Your task to perform on an android device: add a contact in the contacts app Image 0: 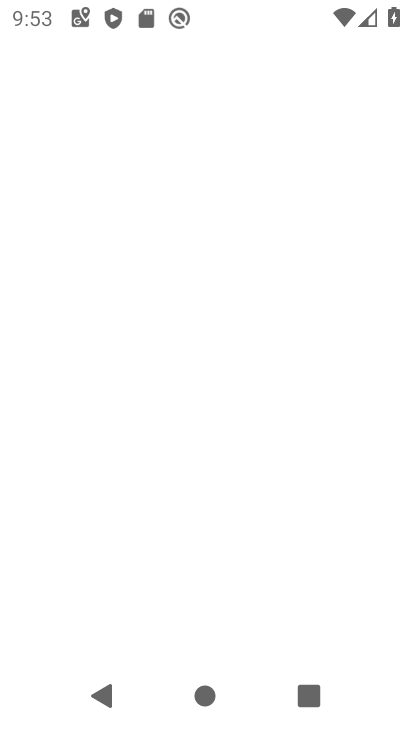
Step 0: press home button
Your task to perform on an android device: add a contact in the contacts app Image 1: 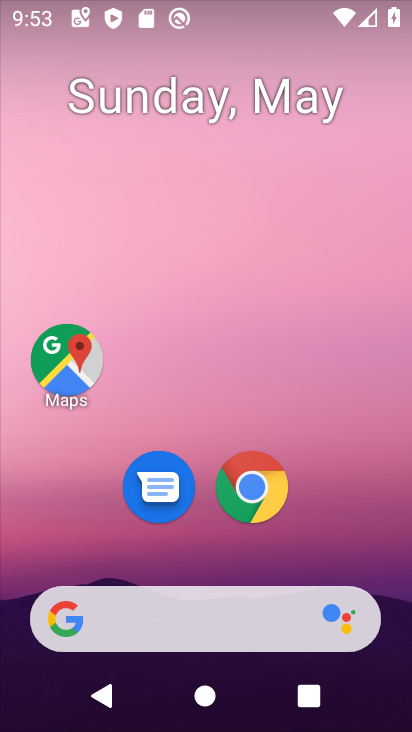
Step 1: drag from (389, 549) to (386, 89)
Your task to perform on an android device: add a contact in the contacts app Image 2: 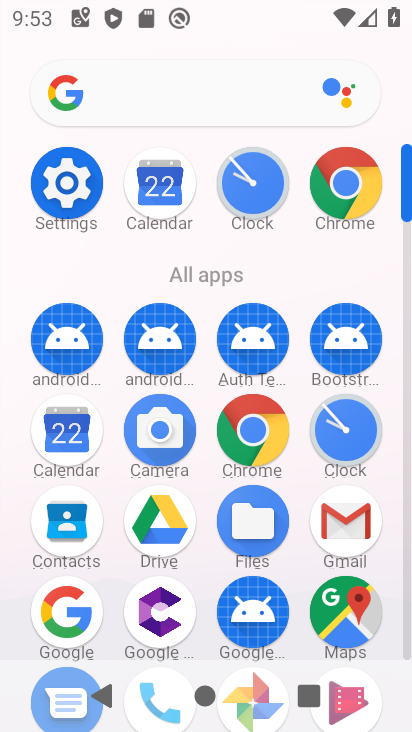
Step 2: click (81, 537)
Your task to perform on an android device: add a contact in the contacts app Image 3: 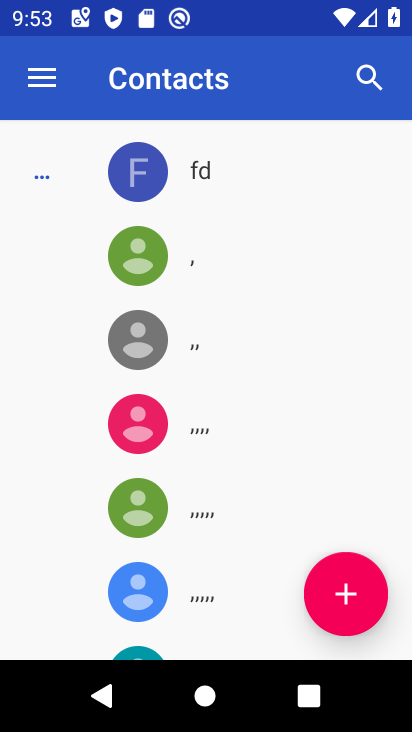
Step 3: click (363, 594)
Your task to perform on an android device: add a contact in the contacts app Image 4: 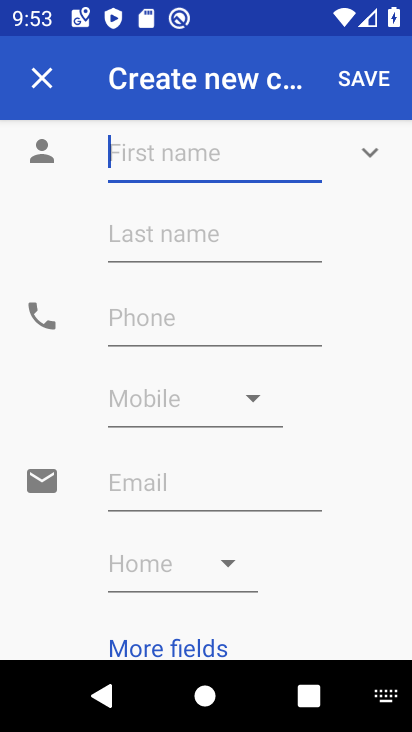
Step 4: click (204, 165)
Your task to perform on an android device: add a contact in the contacts app Image 5: 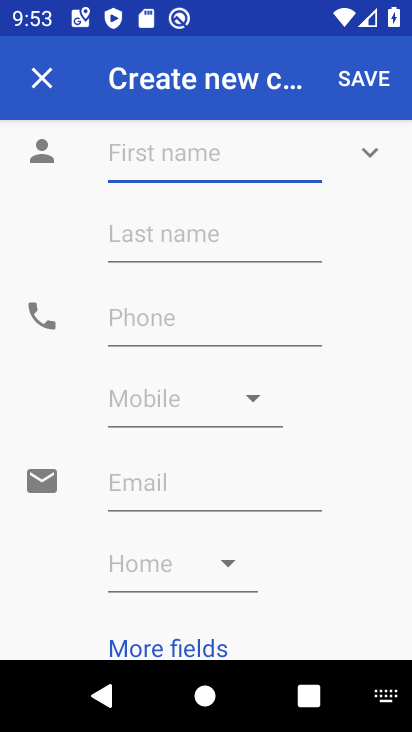
Step 5: type "lolll"
Your task to perform on an android device: add a contact in the contacts app Image 6: 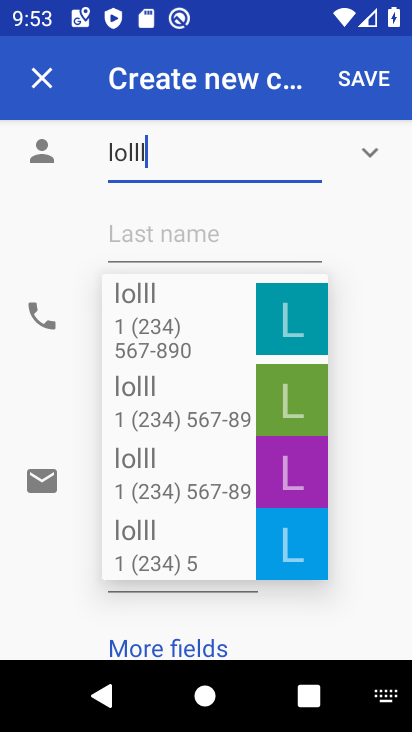
Step 6: click (406, 292)
Your task to perform on an android device: add a contact in the contacts app Image 7: 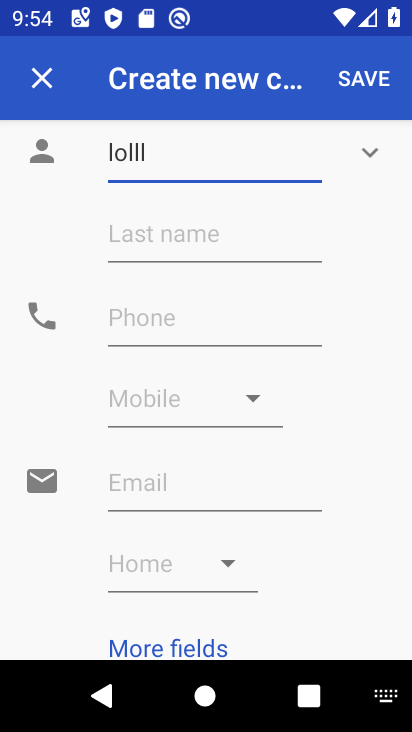
Step 7: click (173, 325)
Your task to perform on an android device: add a contact in the contacts app Image 8: 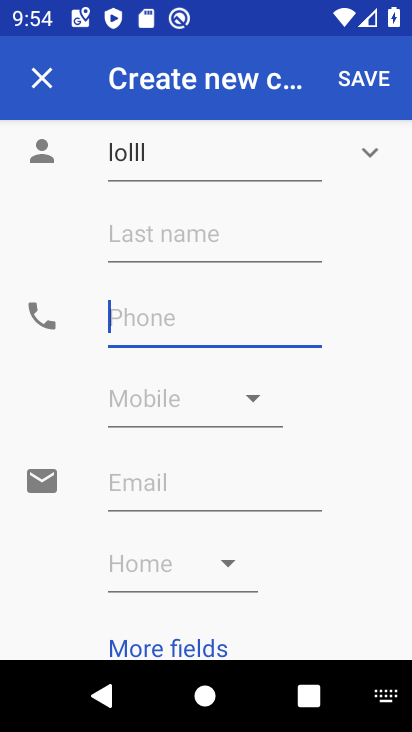
Step 8: type "12345678"
Your task to perform on an android device: add a contact in the contacts app Image 9: 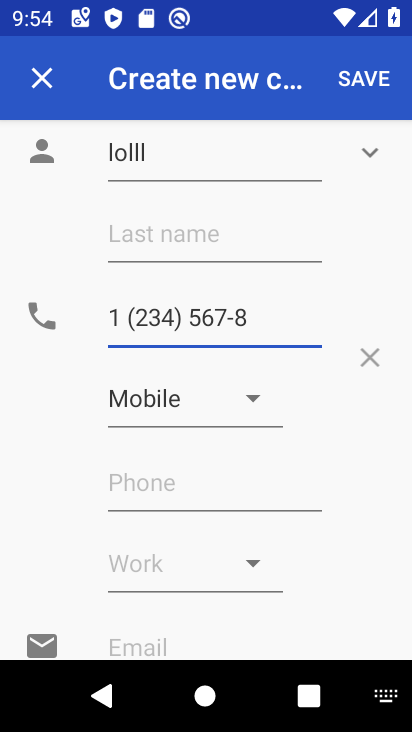
Step 9: click (371, 89)
Your task to perform on an android device: add a contact in the contacts app Image 10: 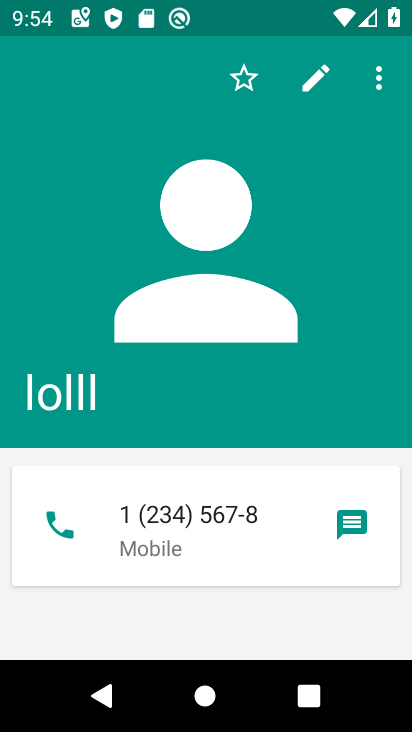
Step 10: task complete